Your task to perform on an android device: What's on my calendar today? Image 0: 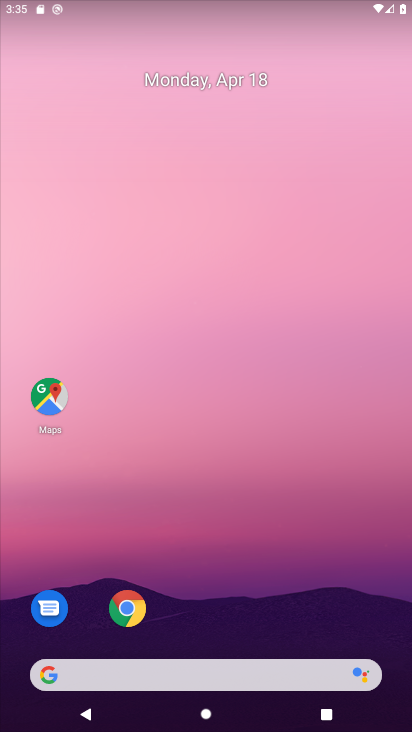
Step 0: click (264, 118)
Your task to perform on an android device: What's on my calendar today? Image 1: 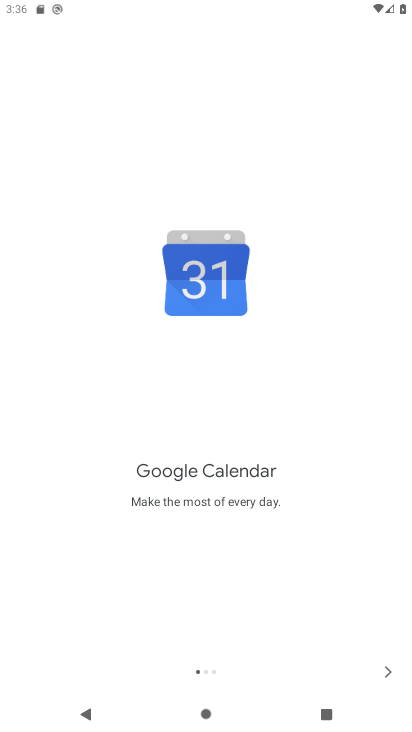
Step 1: click (390, 662)
Your task to perform on an android device: What's on my calendar today? Image 2: 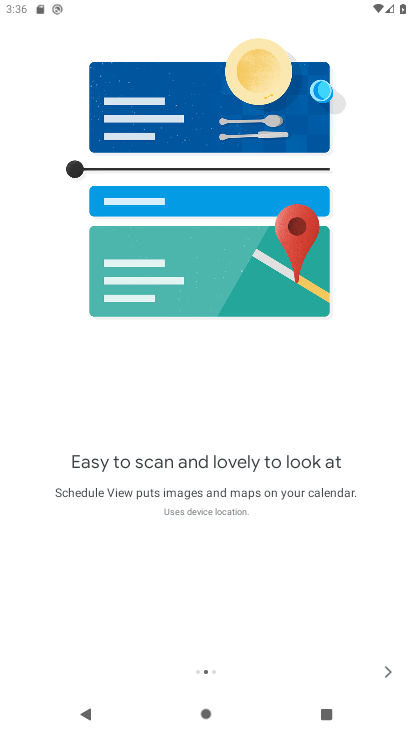
Step 2: click (390, 662)
Your task to perform on an android device: What's on my calendar today? Image 3: 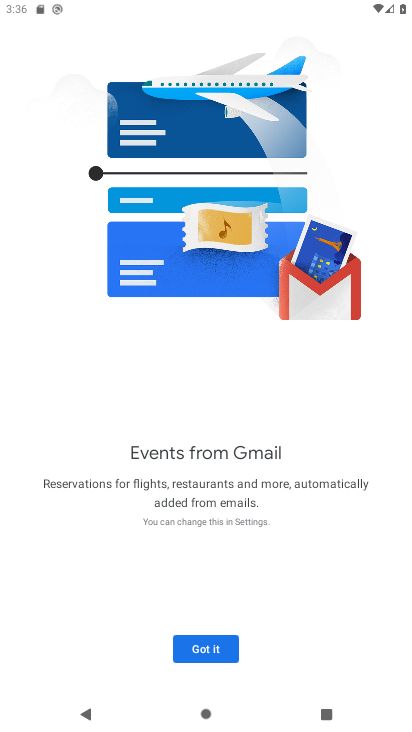
Step 3: click (214, 643)
Your task to perform on an android device: What's on my calendar today? Image 4: 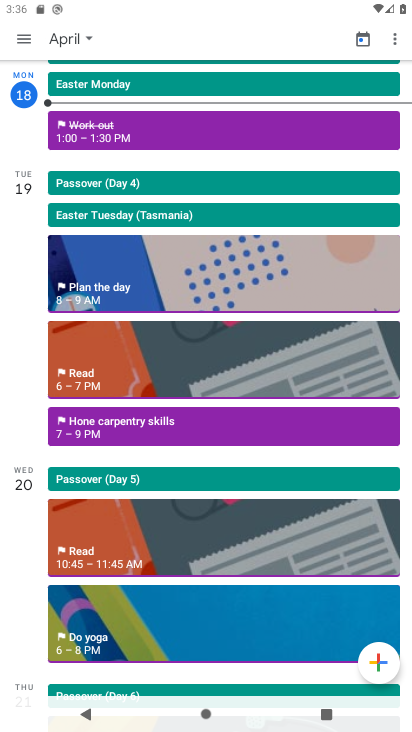
Step 4: click (82, 33)
Your task to perform on an android device: What's on my calendar today? Image 5: 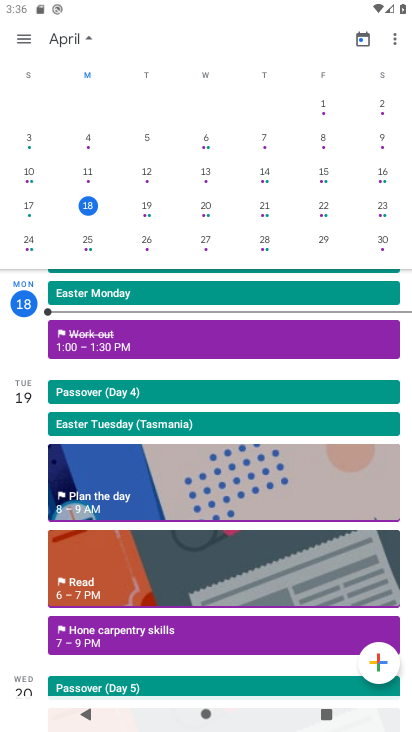
Step 5: click (20, 37)
Your task to perform on an android device: What's on my calendar today? Image 6: 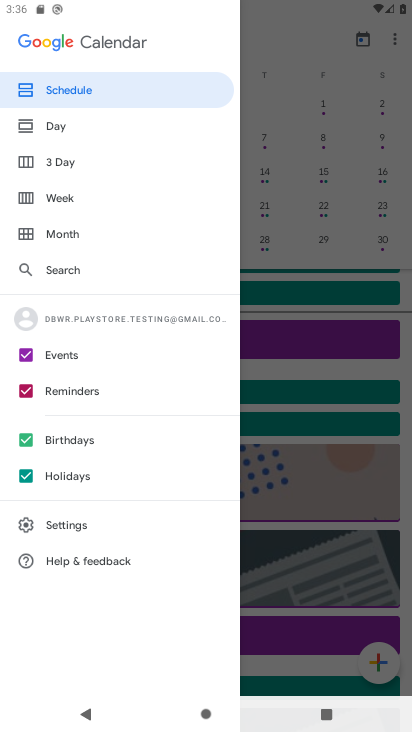
Step 6: click (34, 125)
Your task to perform on an android device: What's on my calendar today? Image 7: 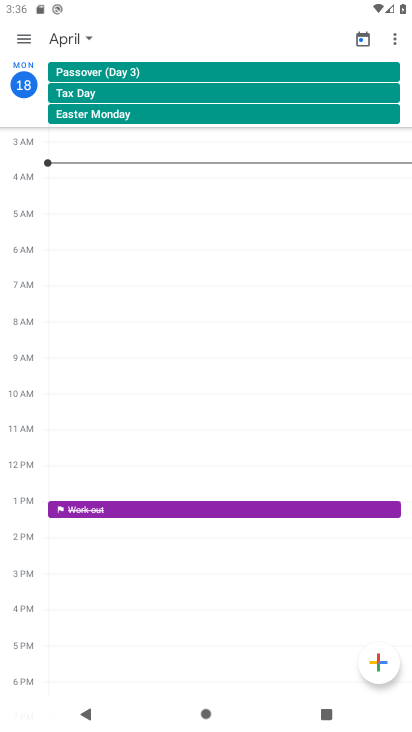
Step 7: task complete